Your task to perform on an android device: What's the weather today? Image 0: 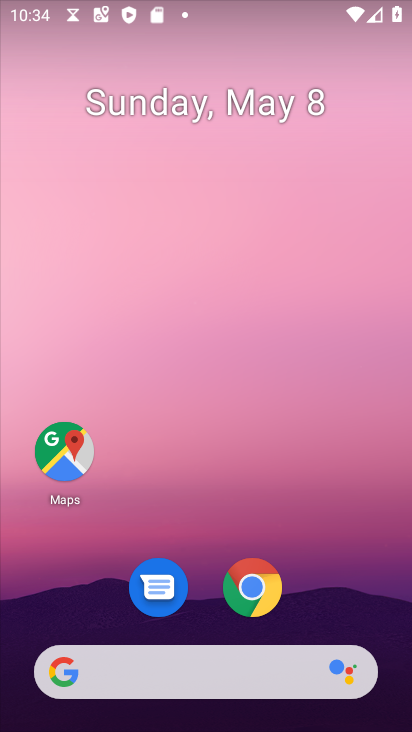
Step 0: click (255, 581)
Your task to perform on an android device: What's the weather today? Image 1: 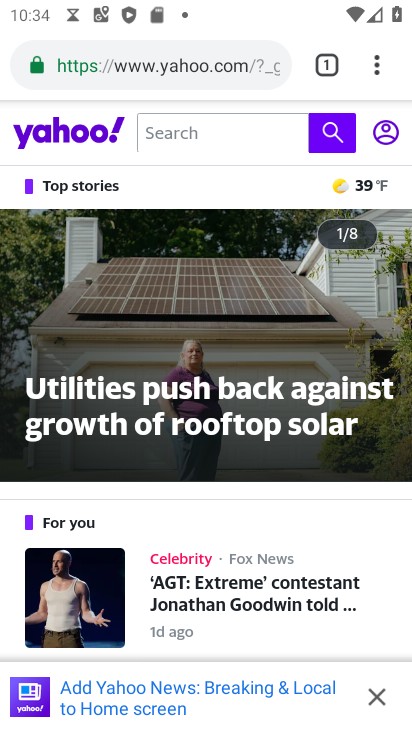
Step 1: click (333, 64)
Your task to perform on an android device: What's the weather today? Image 2: 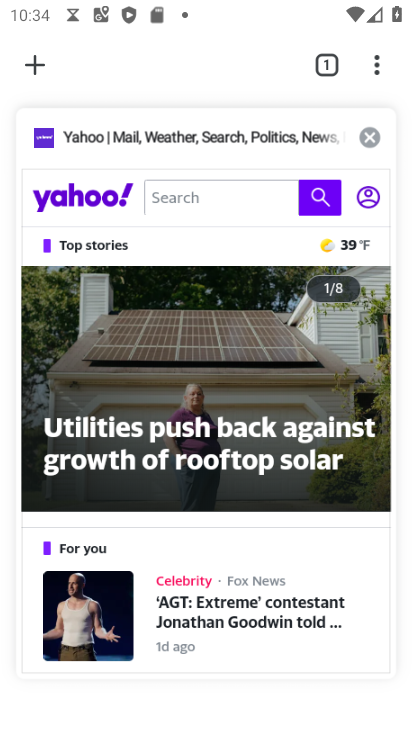
Step 2: click (31, 63)
Your task to perform on an android device: What's the weather today? Image 3: 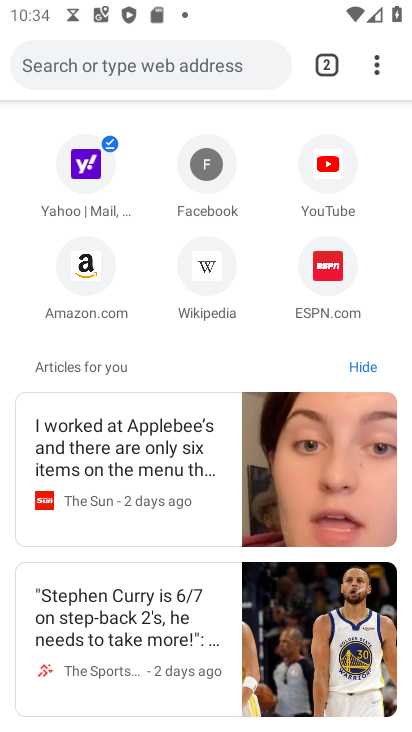
Step 3: click (137, 73)
Your task to perform on an android device: What's the weather today? Image 4: 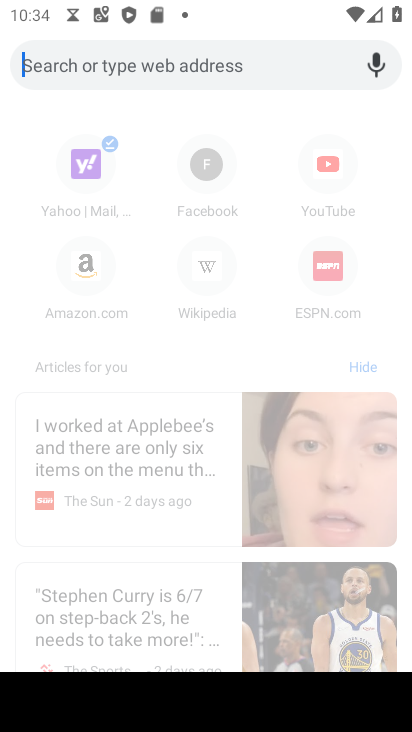
Step 4: type "whats the weather today"
Your task to perform on an android device: What's the weather today? Image 5: 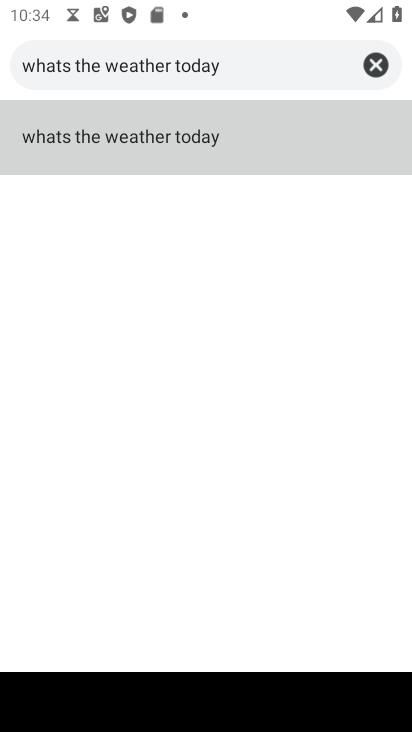
Step 5: click (104, 151)
Your task to perform on an android device: What's the weather today? Image 6: 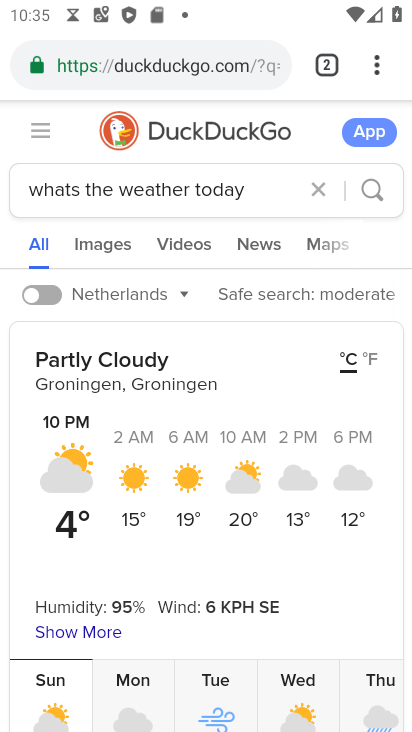
Step 6: task complete